Your task to perform on an android device: toggle javascript in the chrome app Image 0: 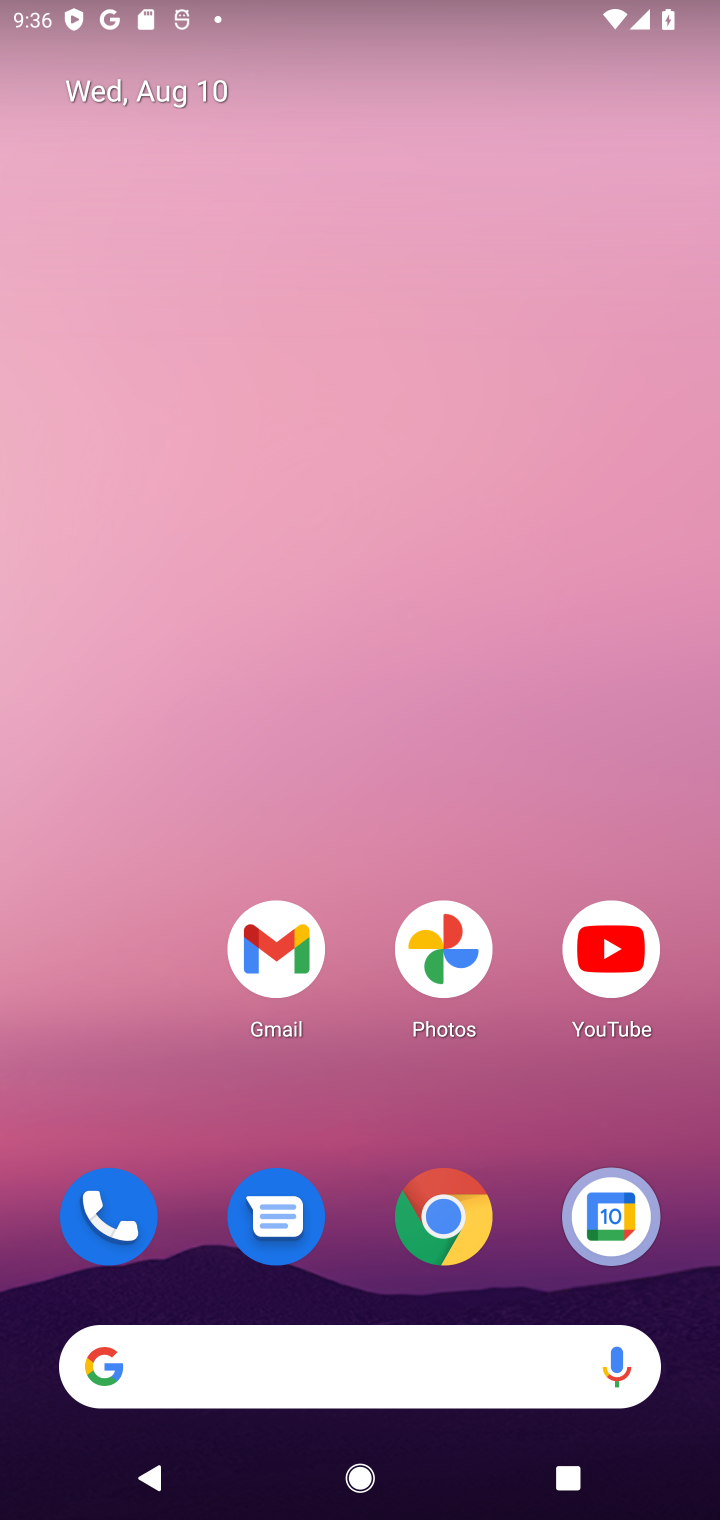
Step 0: press home button
Your task to perform on an android device: toggle javascript in the chrome app Image 1: 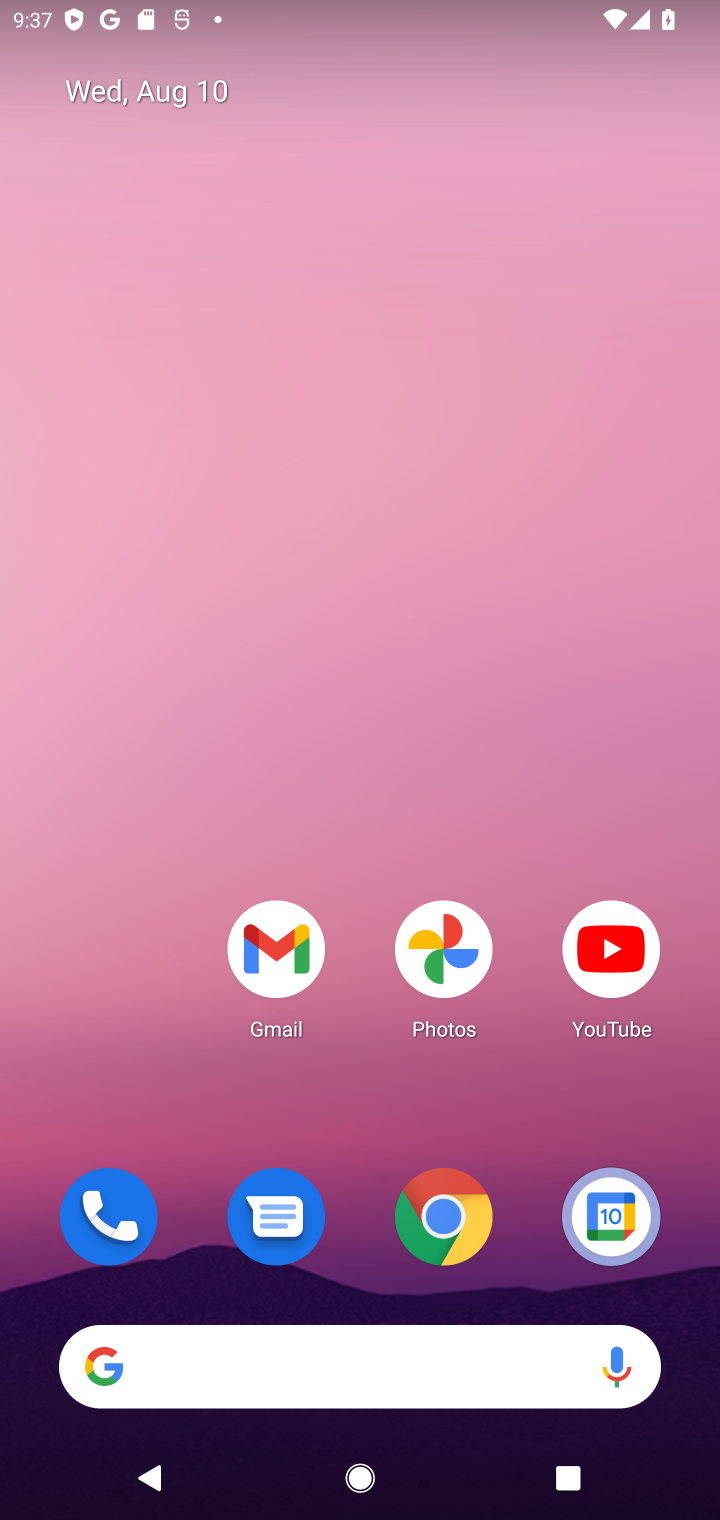
Step 1: click (445, 1210)
Your task to perform on an android device: toggle javascript in the chrome app Image 2: 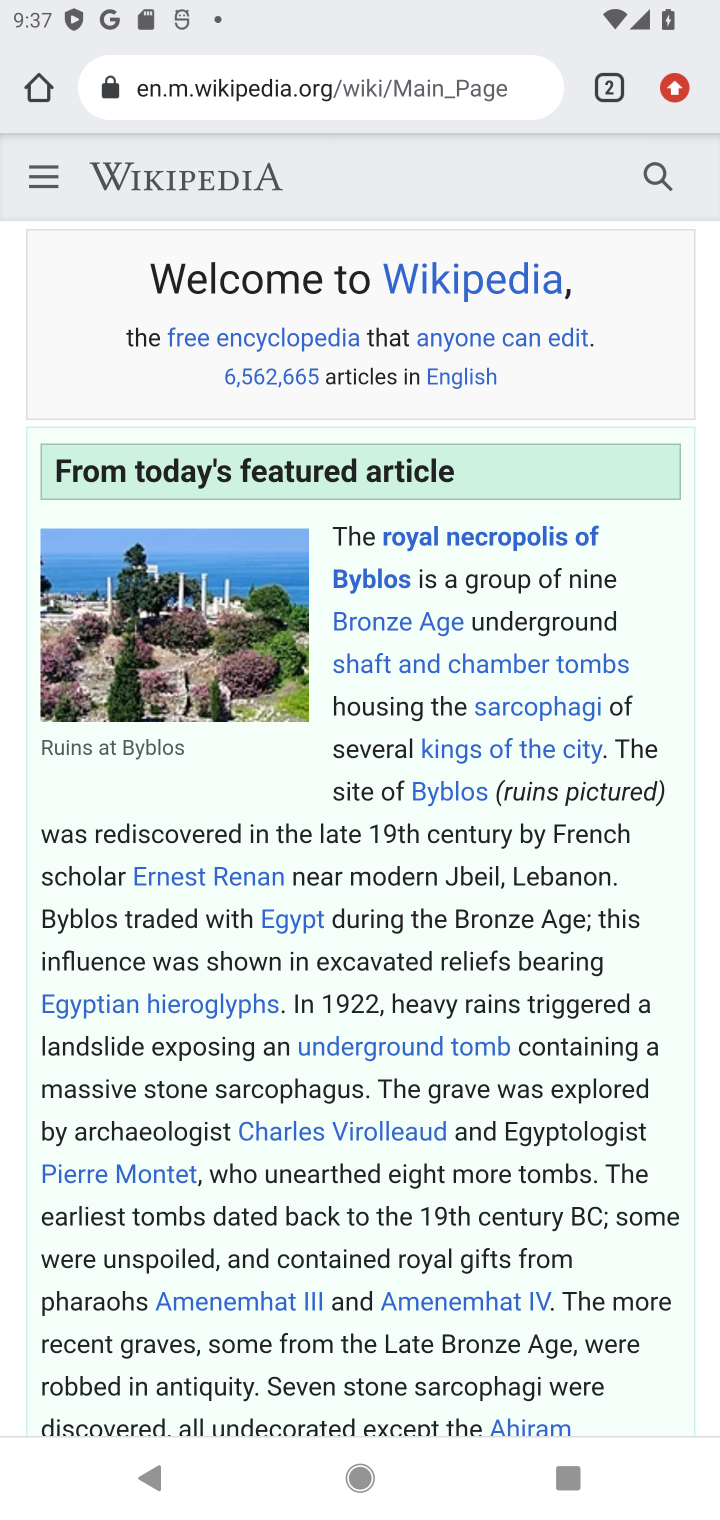
Step 2: click (678, 97)
Your task to perform on an android device: toggle javascript in the chrome app Image 3: 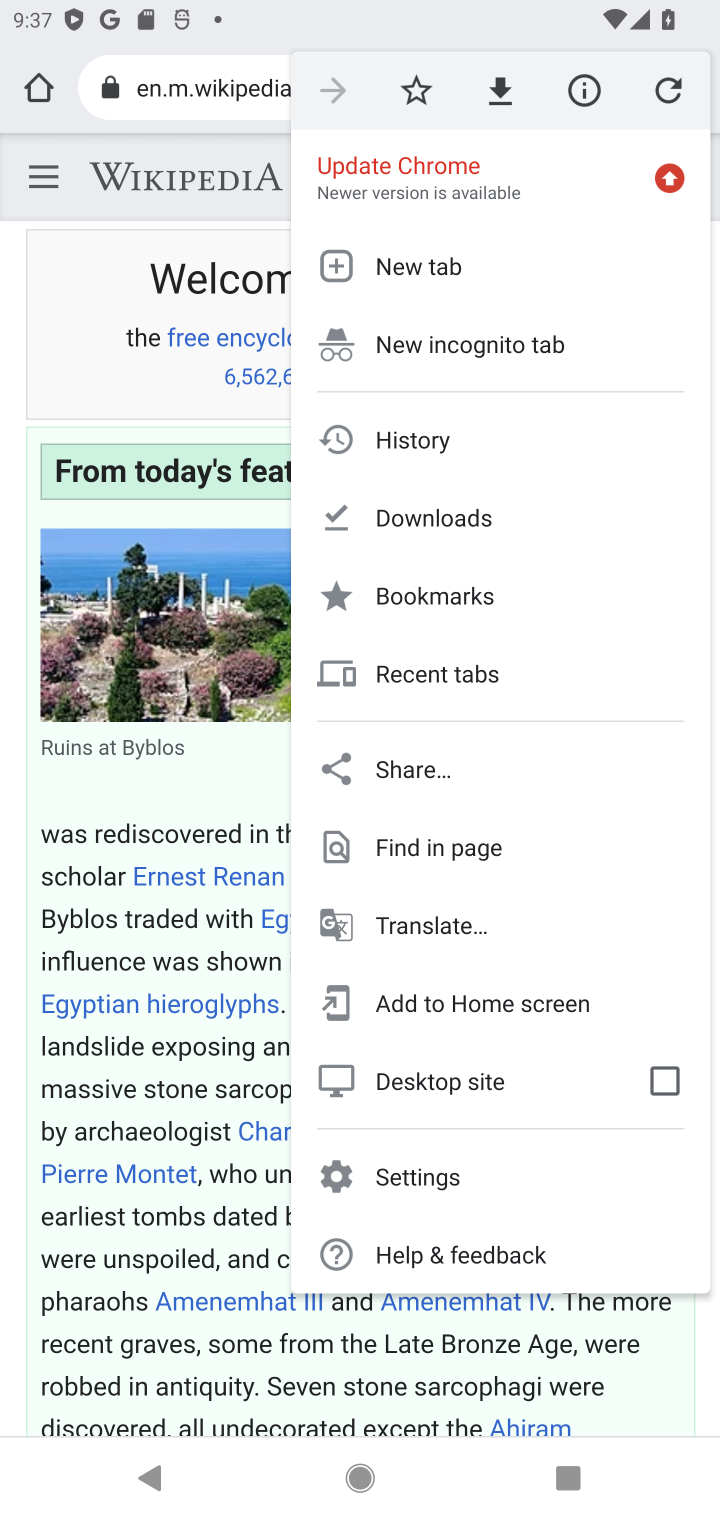
Step 3: click (457, 1164)
Your task to perform on an android device: toggle javascript in the chrome app Image 4: 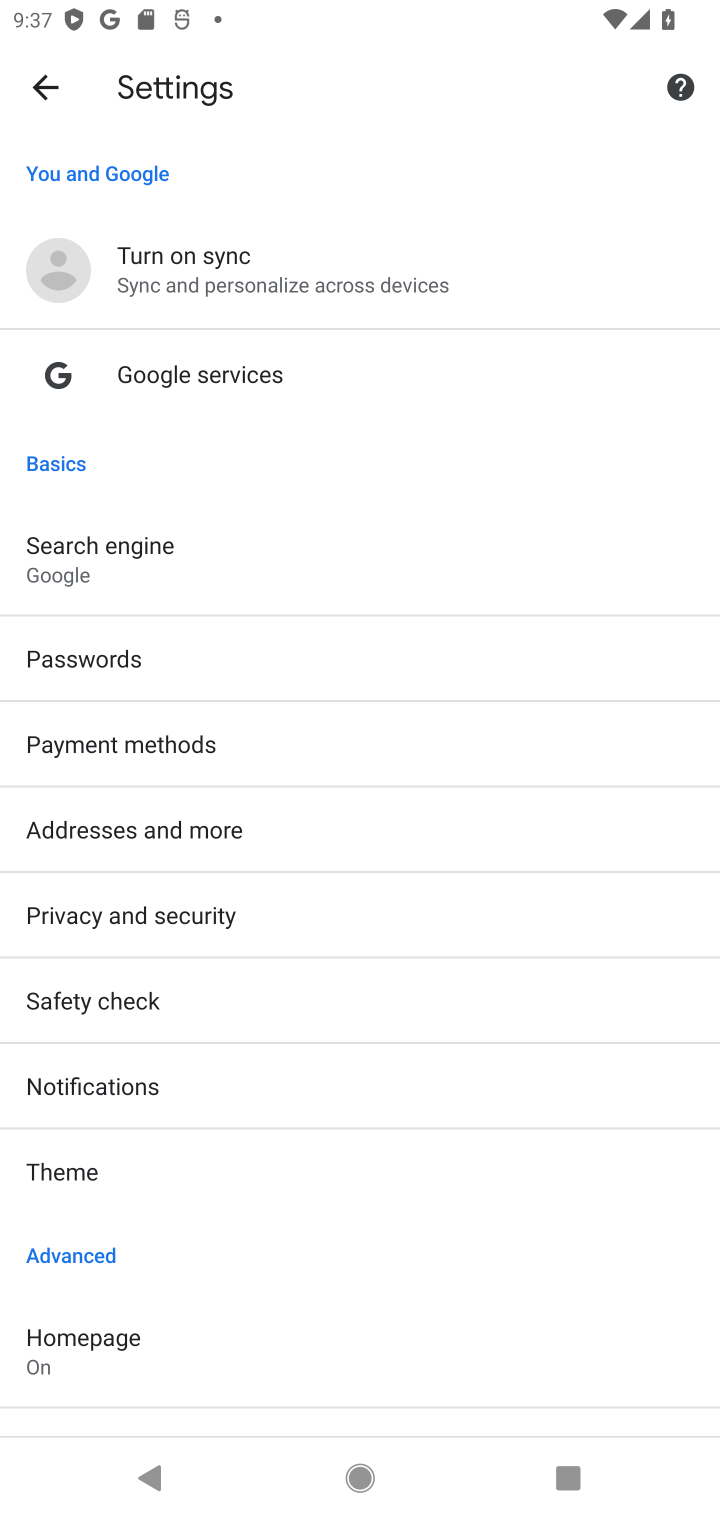
Step 4: drag from (73, 781) to (364, 282)
Your task to perform on an android device: toggle javascript in the chrome app Image 5: 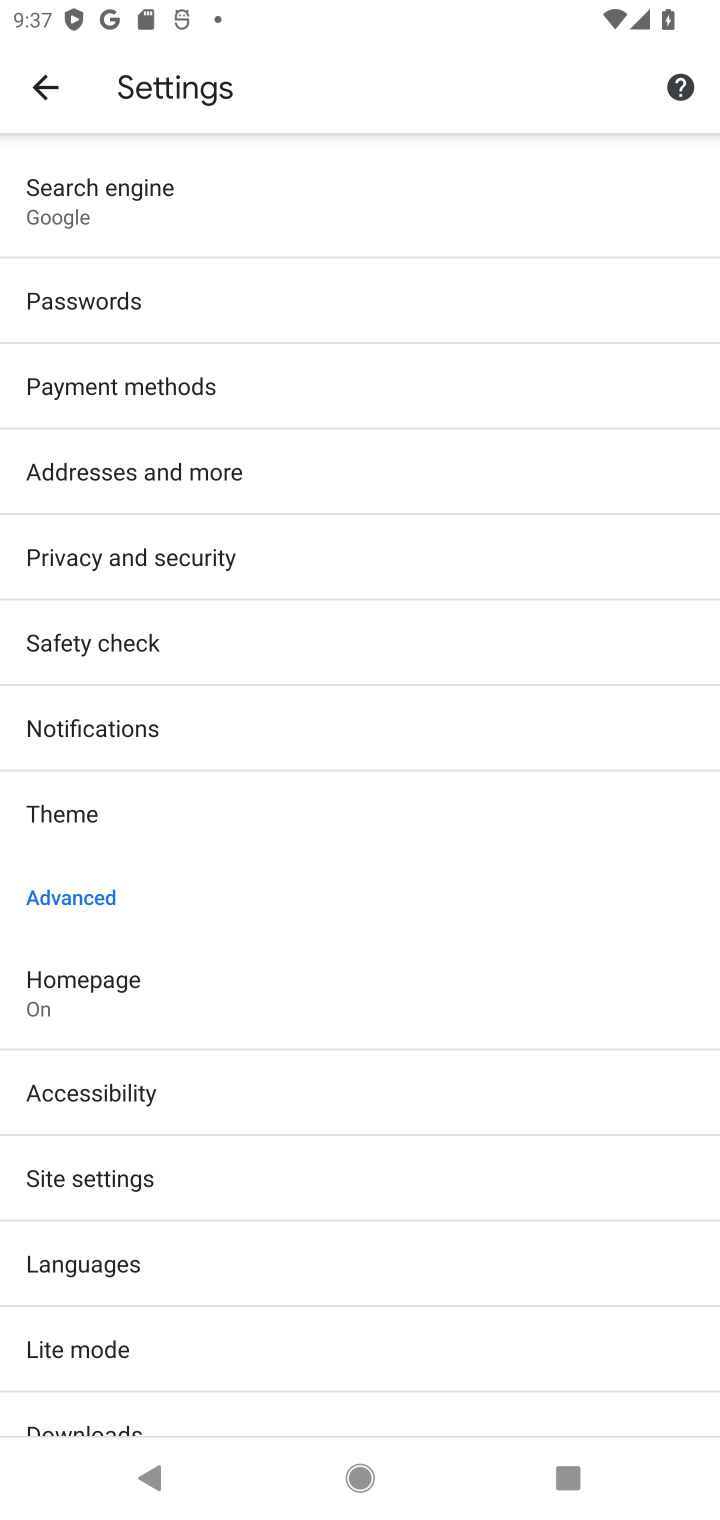
Step 5: click (84, 1177)
Your task to perform on an android device: toggle javascript in the chrome app Image 6: 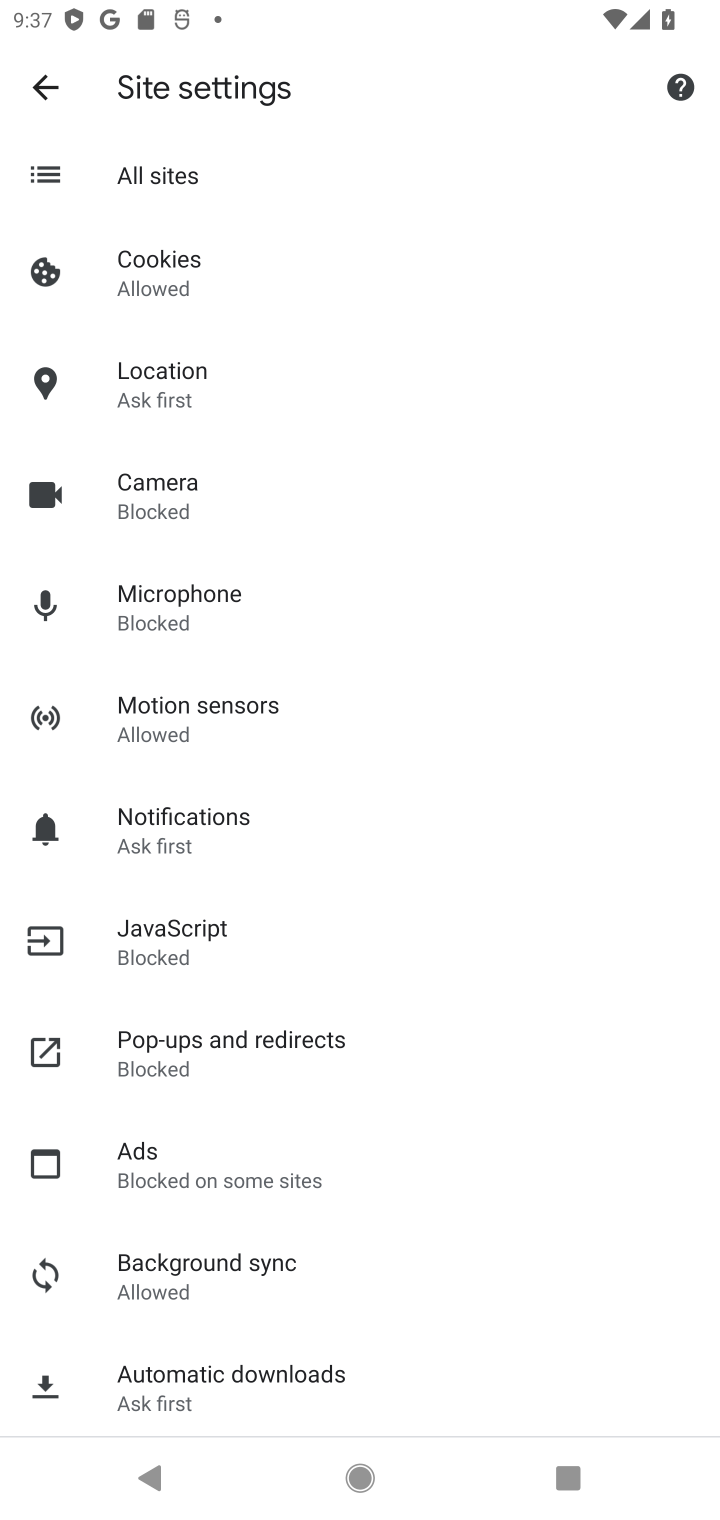
Step 6: click (191, 951)
Your task to perform on an android device: toggle javascript in the chrome app Image 7: 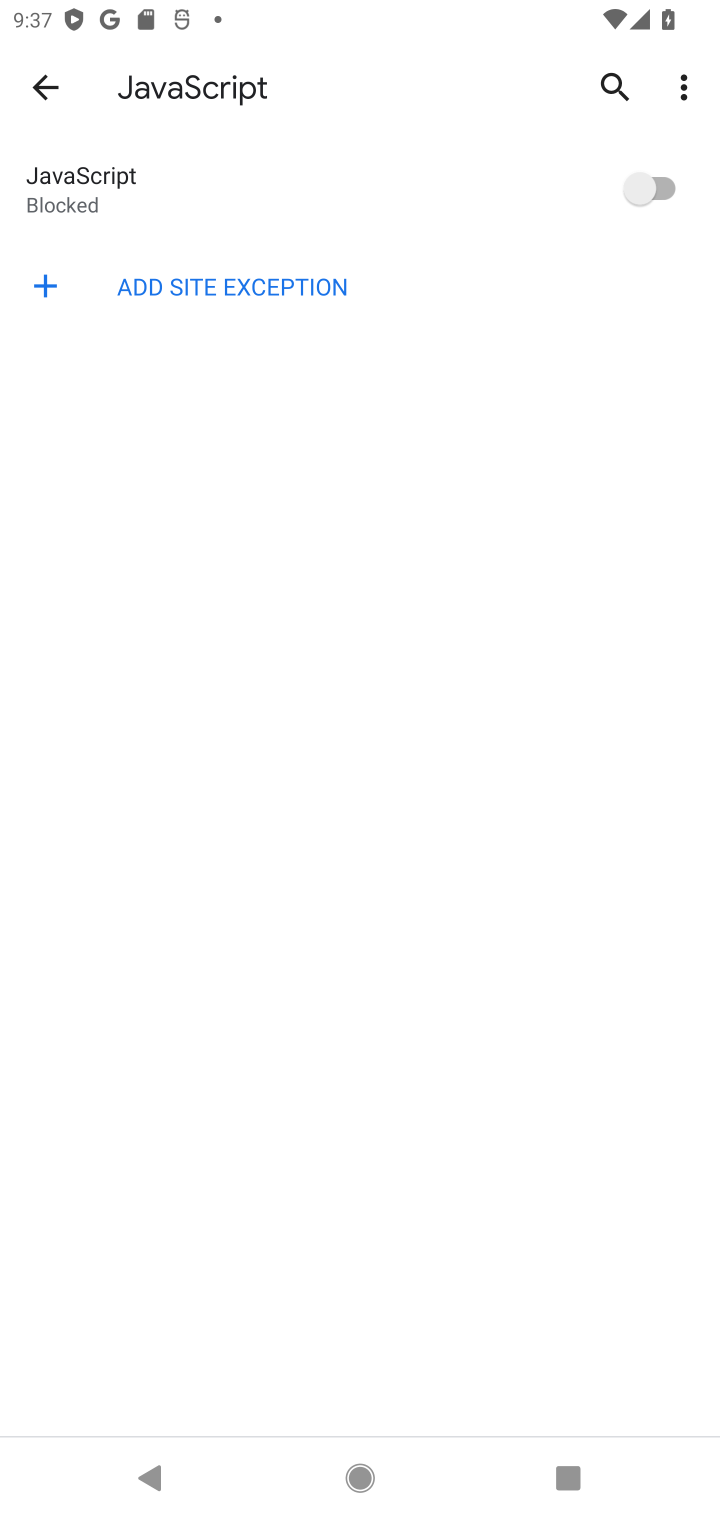
Step 7: click (642, 198)
Your task to perform on an android device: toggle javascript in the chrome app Image 8: 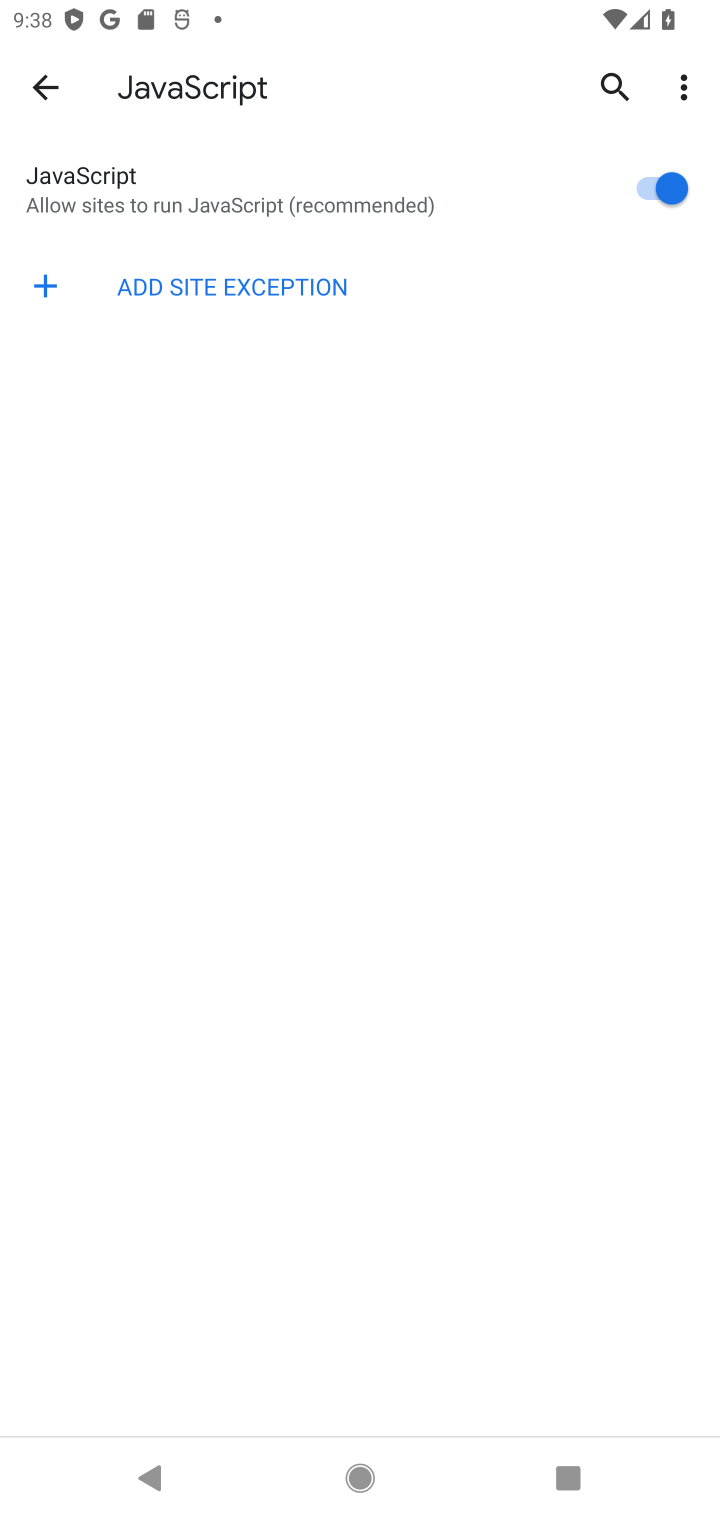
Step 8: task complete